Your task to perform on an android device: install app "Speedtest by Ookla" Image 0: 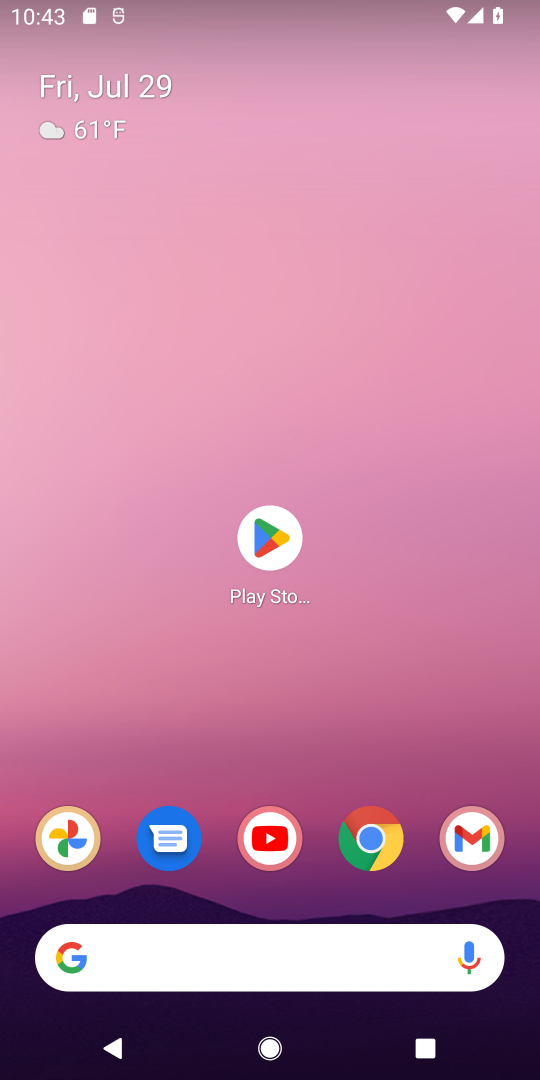
Step 0: press home button
Your task to perform on an android device: install app "Speedtest by Ookla" Image 1: 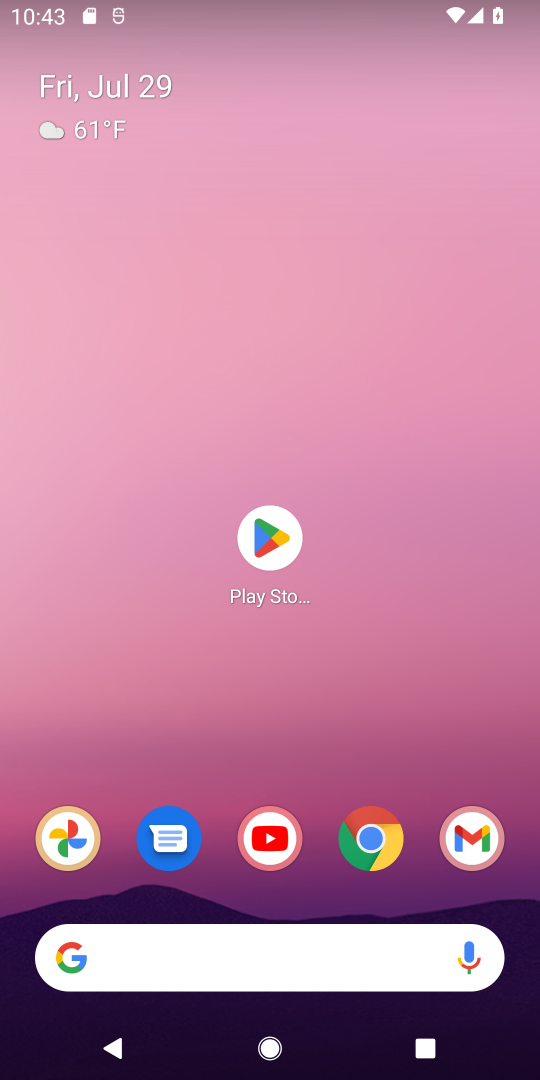
Step 1: click (261, 529)
Your task to perform on an android device: install app "Speedtest by Ookla" Image 2: 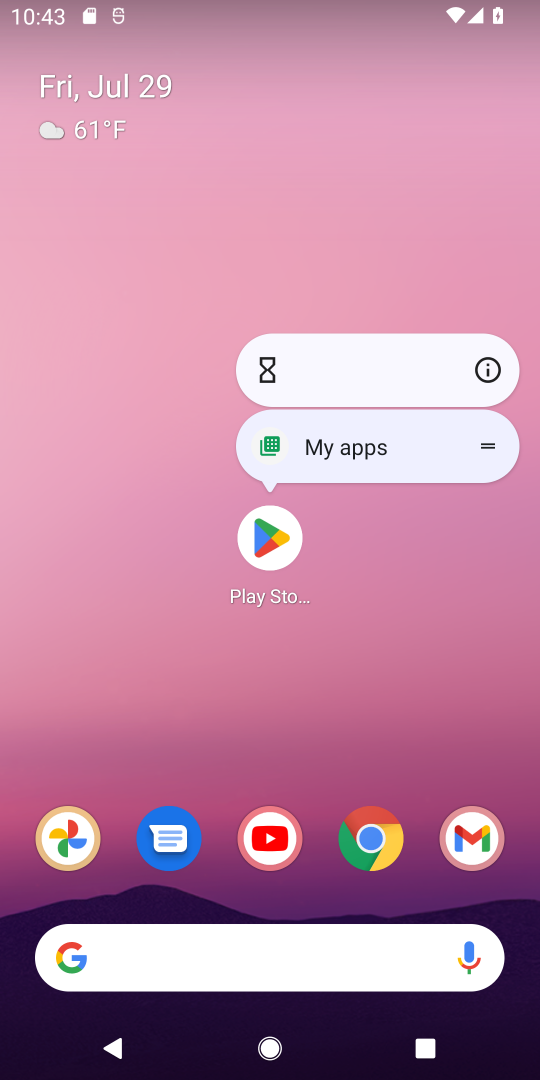
Step 2: click (265, 532)
Your task to perform on an android device: install app "Speedtest by Ookla" Image 3: 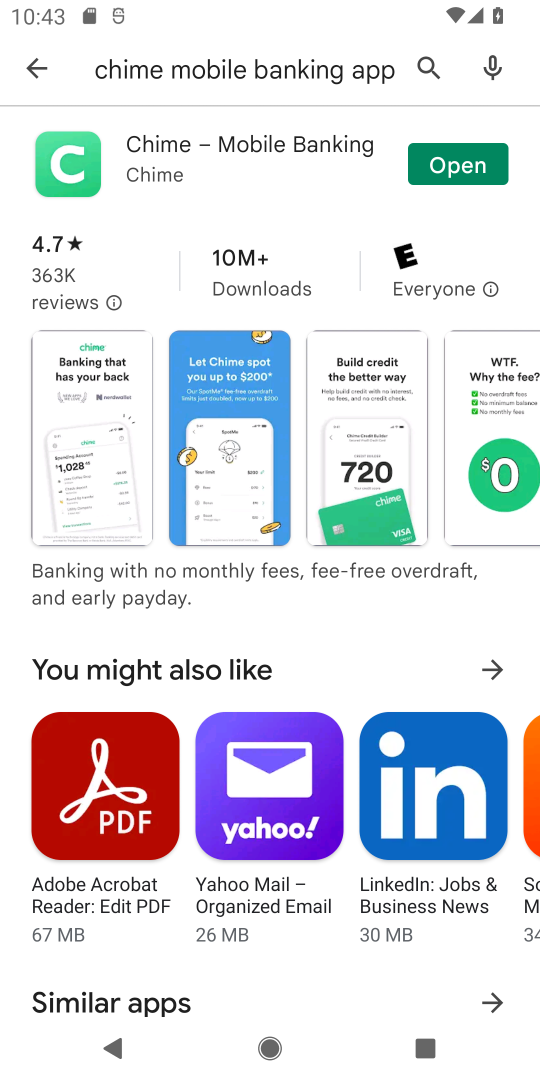
Step 3: click (424, 62)
Your task to perform on an android device: install app "Speedtest by Ookla" Image 4: 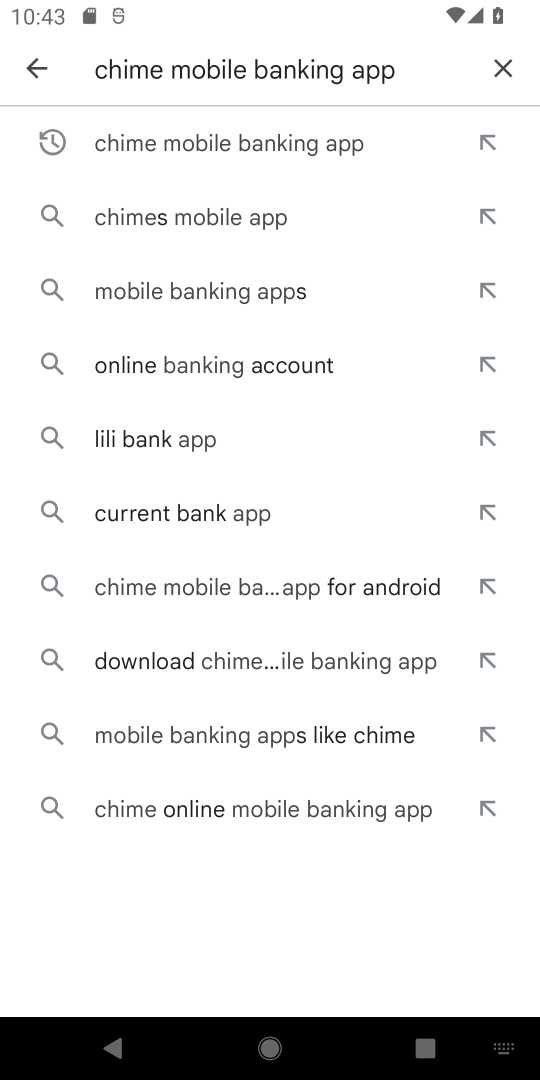
Step 4: click (494, 51)
Your task to perform on an android device: install app "Speedtest by Ookla" Image 5: 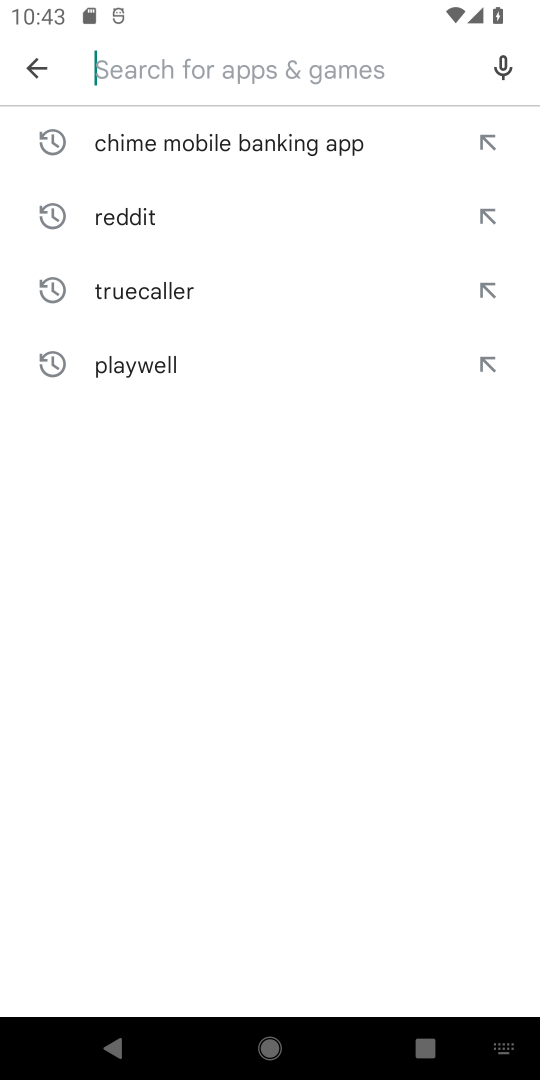
Step 5: type "Speedtest by Ookla"
Your task to perform on an android device: install app "Speedtest by Ookla" Image 6: 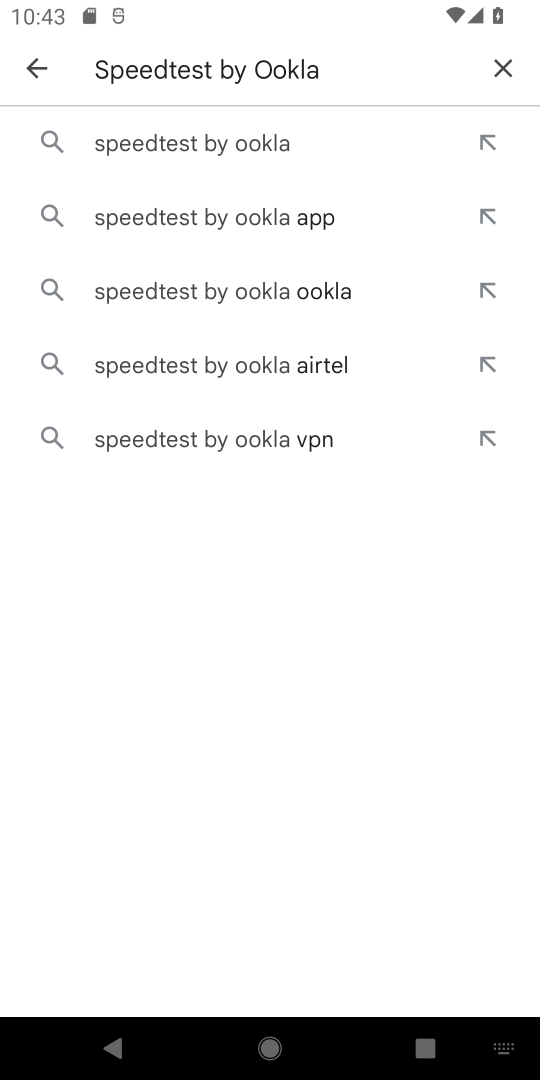
Step 6: click (193, 151)
Your task to perform on an android device: install app "Speedtest by Ookla" Image 7: 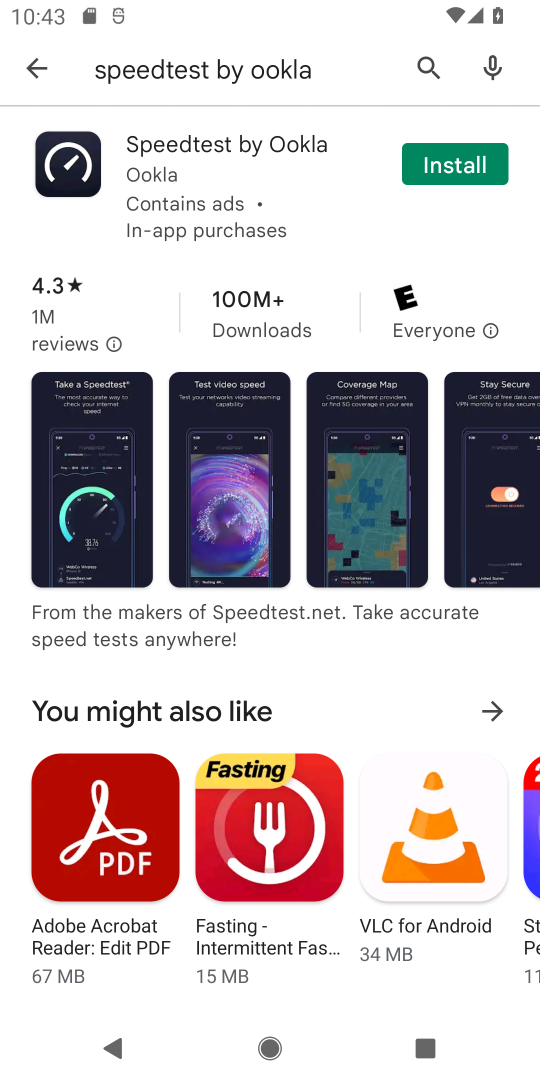
Step 7: click (455, 163)
Your task to perform on an android device: install app "Speedtest by Ookla" Image 8: 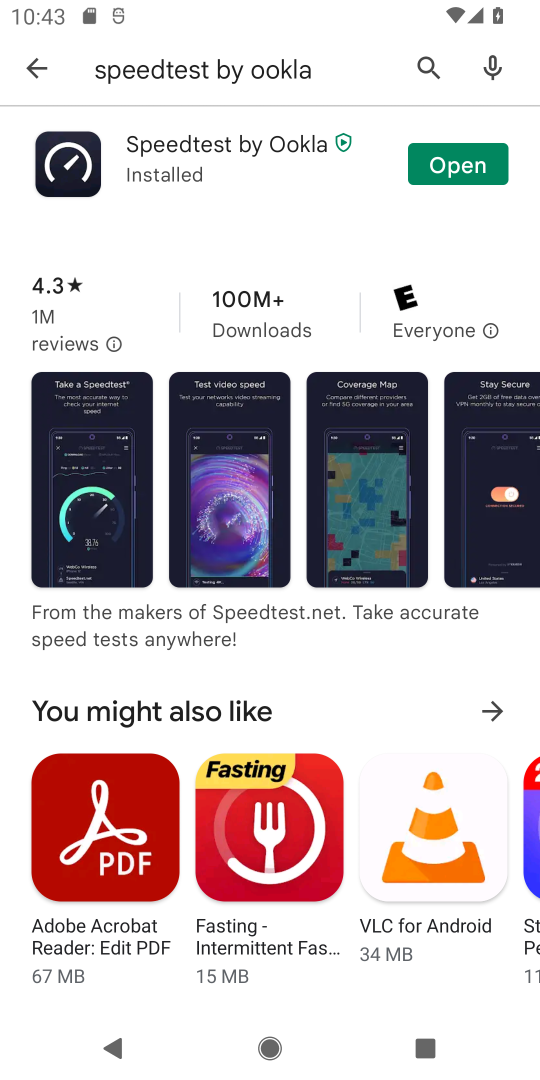
Step 8: task complete